Your task to perform on an android device: Open battery settings Image 0: 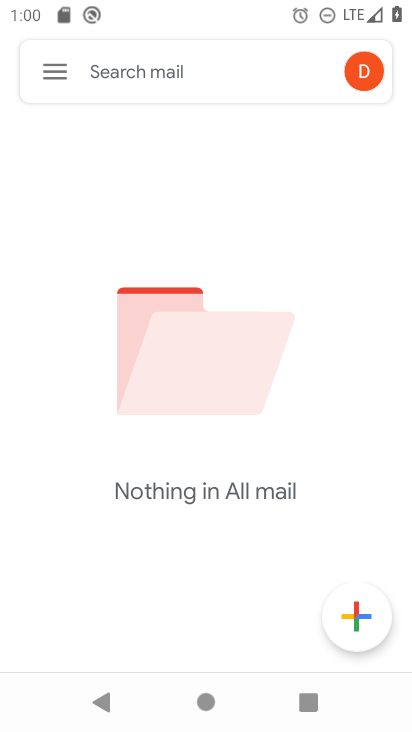
Step 0: press home button
Your task to perform on an android device: Open battery settings Image 1: 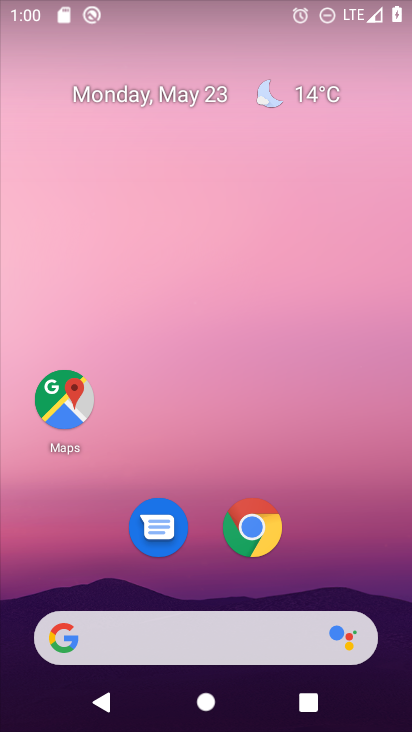
Step 1: drag from (265, 454) to (253, 36)
Your task to perform on an android device: Open battery settings Image 2: 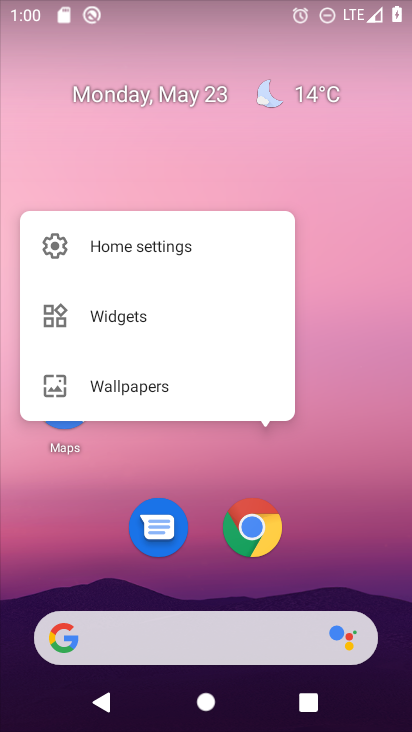
Step 2: click (341, 385)
Your task to perform on an android device: Open battery settings Image 3: 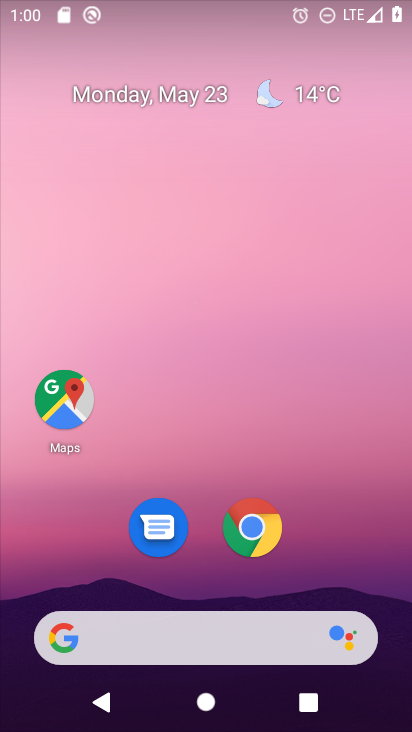
Step 3: click (347, 503)
Your task to perform on an android device: Open battery settings Image 4: 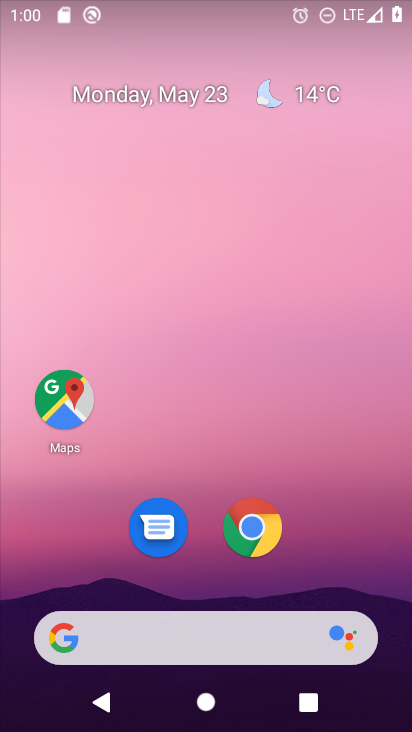
Step 4: drag from (347, 503) to (294, 81)
Your task to perform on an android device: Open battery settings Image 5: 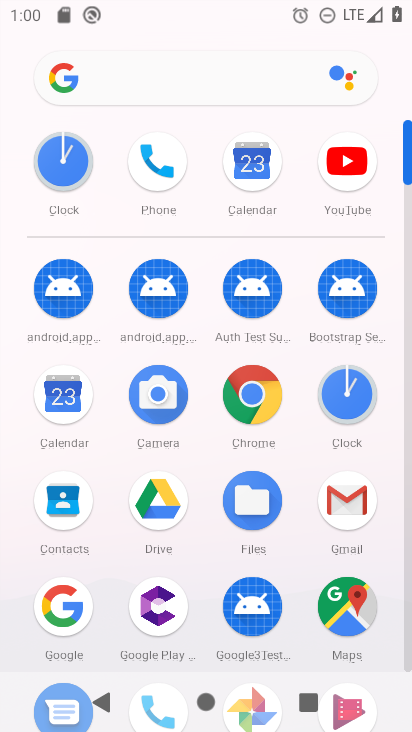
Step 5: click (411, 583)
Your task to perform on an android device: Open battery settings Image 6: 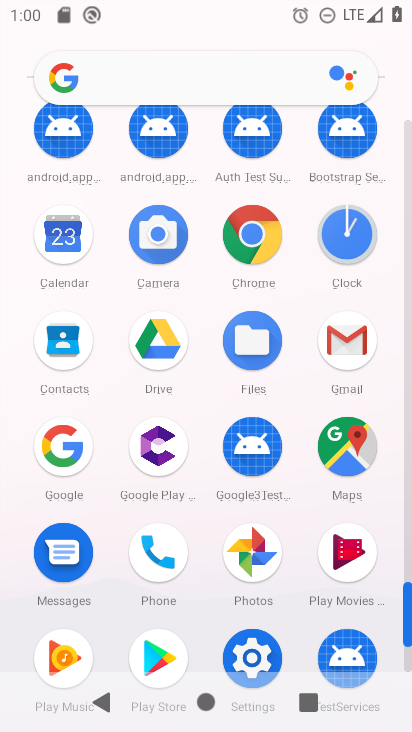
Step 6: click (243, 654)
Your task to perform on an android device: Open battery settings Image 7: 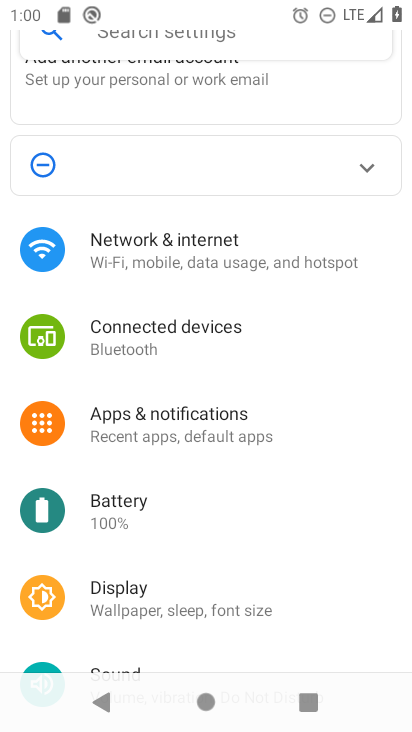
Step 7: click (191, 530)
Your task to perform on an android device: Open battery settings Image 8: 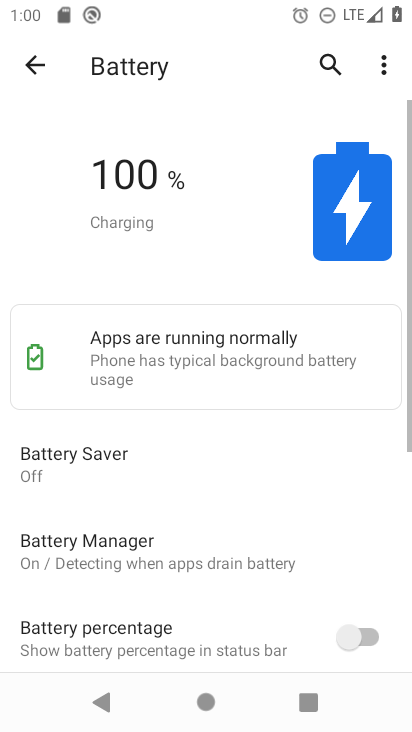
Step 8: task complete